Your task to perform on an android device: Search for Mexican restaurants on Maps Image 0: 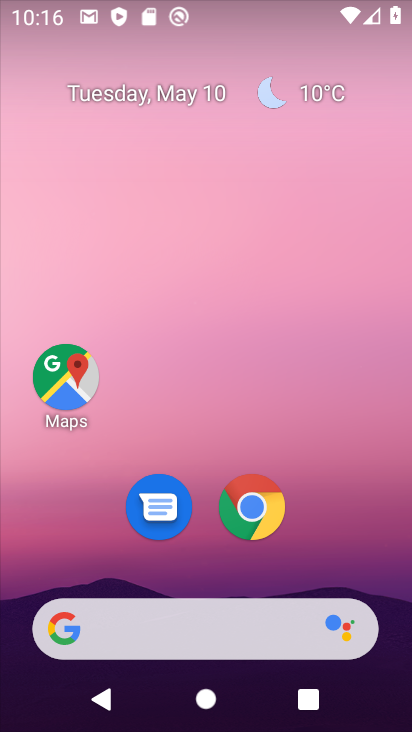
Step 0: click (76, 380)
Your task to perform on an android device: Search for Mexican restaurants on Maps Image 1: 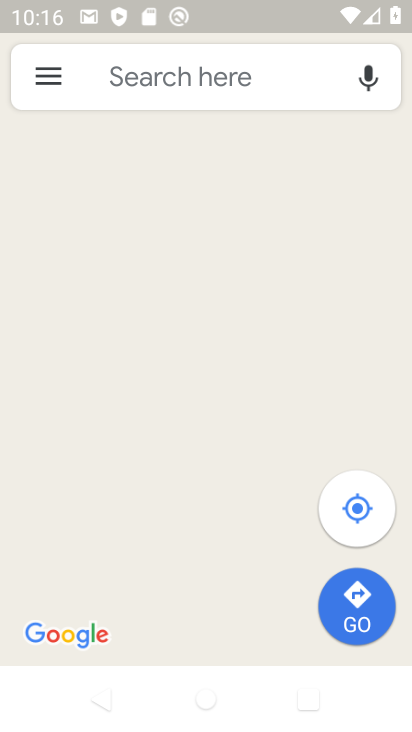
Step 1: click (254, 75)
Your task to perform on an android device: Search for Mexican restaurants on Maps Image 2: 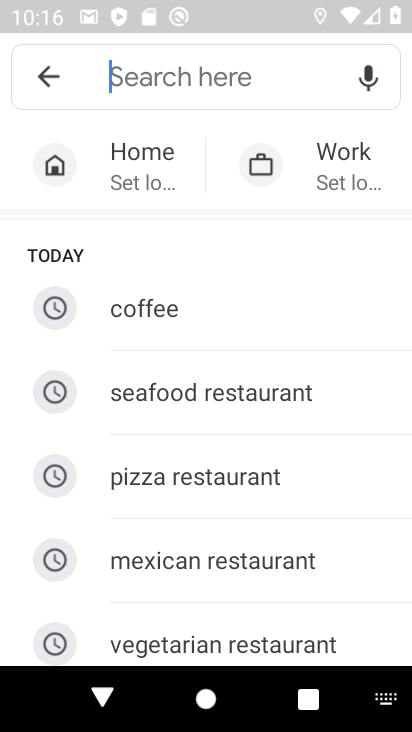
Step 2: type "mexican"
Your task to perform on an android device: Search for Mexican restaurants on Maps Image 3: 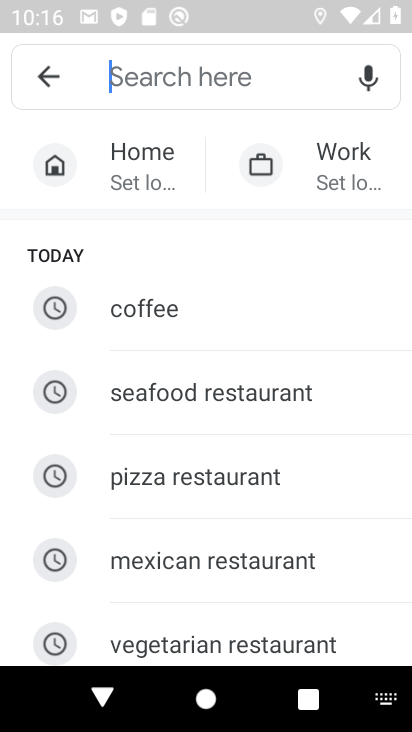
Step 3: click (276, 545)
Your task to perform on an android device: Search for Mexican restaurants on Maps Image 4: 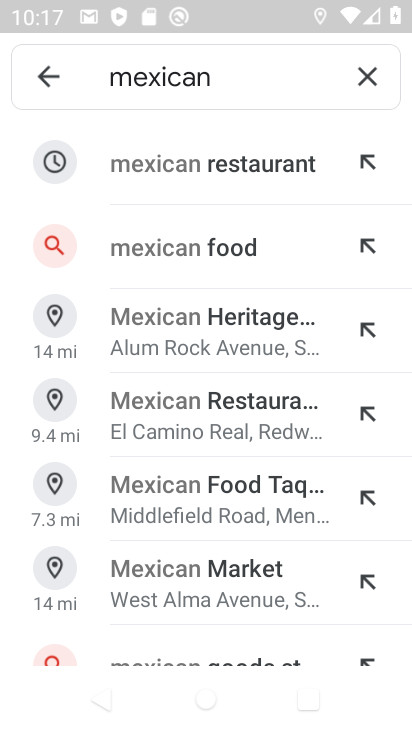
Step 4: click (181, 161)
Your task to perform on an android device: Search for Mexican restaurants on Maps Image 5: 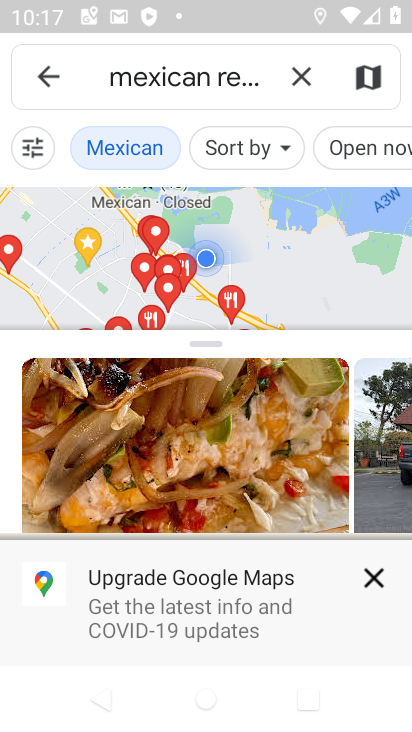
Step 5: task complete